Your task to perform on an android device: Open Youtube and go to the subscriptions tab Image 0: 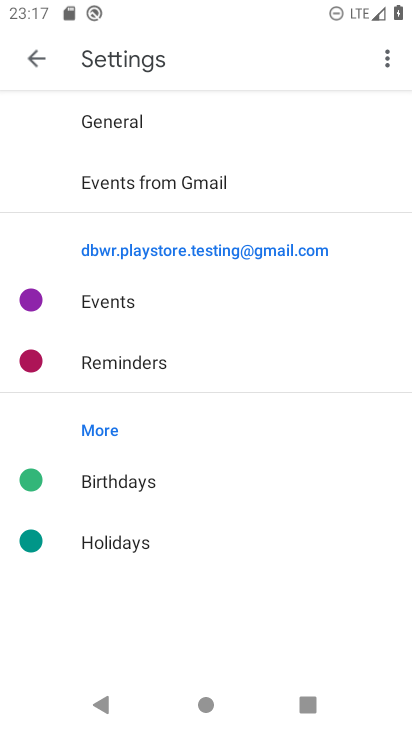
Step 0: press home button
Your task to perform on an android device: Open Youtube and go to the subscriptions tab Image 1: 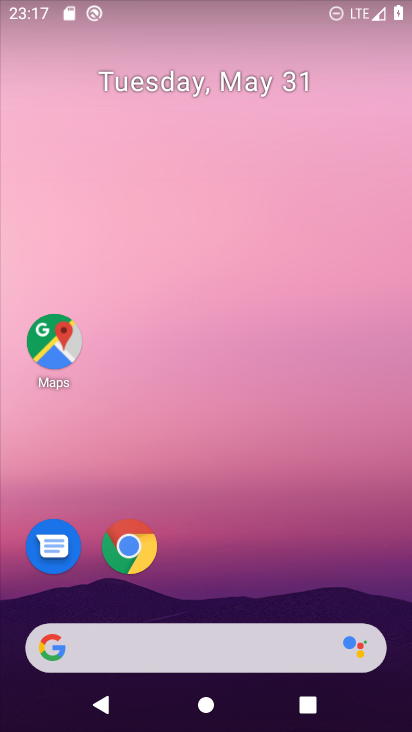
Step 1: drag from (382, 656) to (261, 133)
Your task to perform on an android device: Open Youtube and go to the subscriptions tab Image 2: 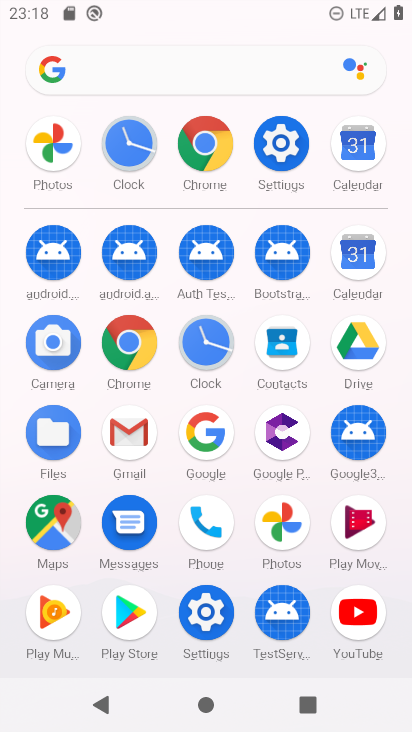
Step 2: click (338, 612)
Your task to perform on an android device: Open Youtube and go to the subscriptions tab Image 3: 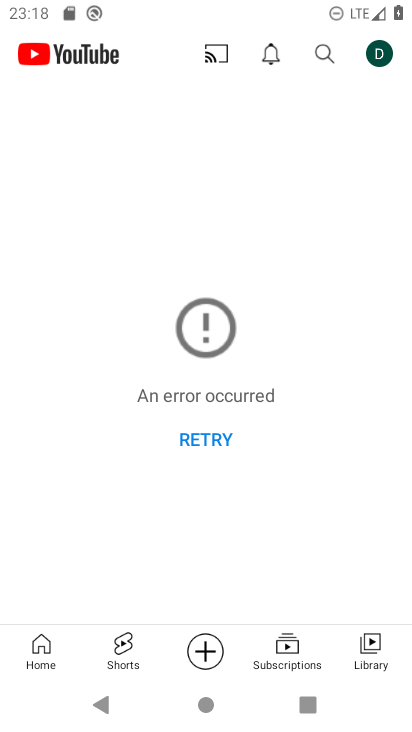
Step 3: click (295, 652)
Your task to perform on an android device: Open Youtube and go to the subscriptions tab Image 4: 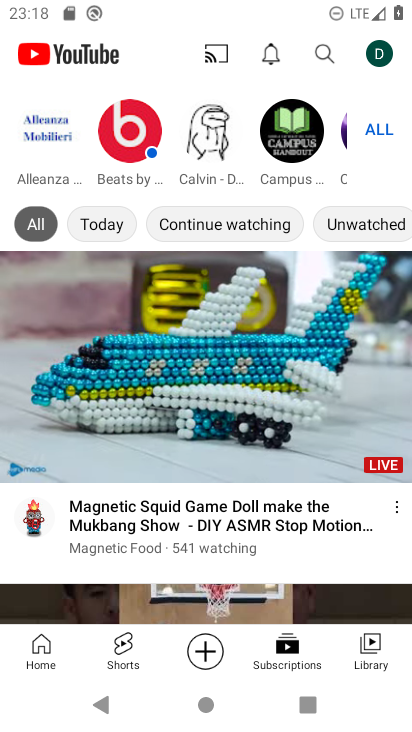
Step 4: task complete